Your task to perform on an android device: find photos in the google photos app Image 0: 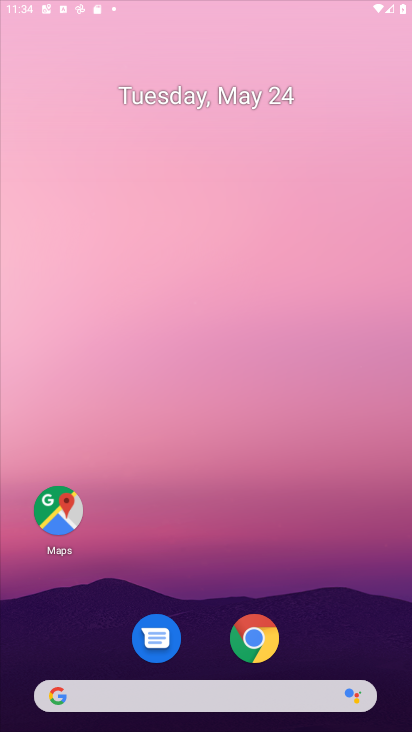
Step 0: click (325, 155)
Your task to perform on an android device: find photos in the google photos app Image 1: 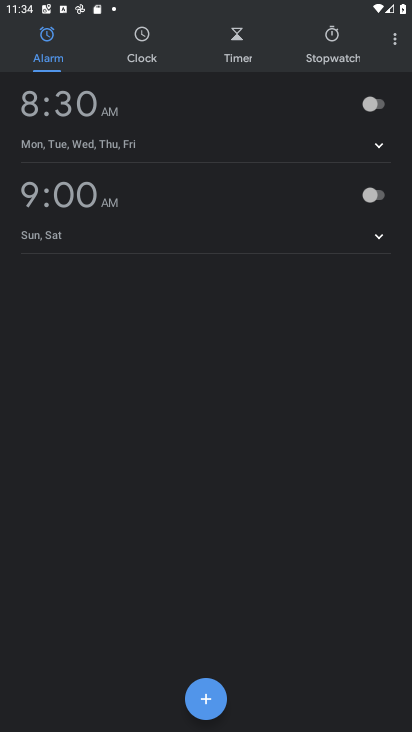
Step 1: press home button
Your task to perform on an android device: find photos in the google photos app Image 2: 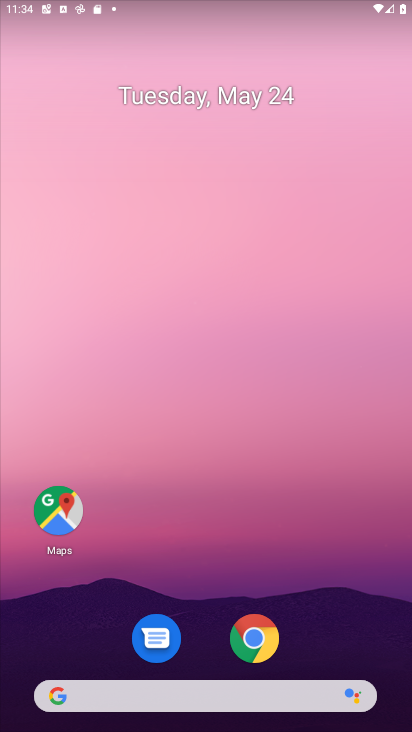
Step 2: drag from (222, 652) to (320, 15)
Your task to perform on an android device: find photos in the google photos app Image 3: 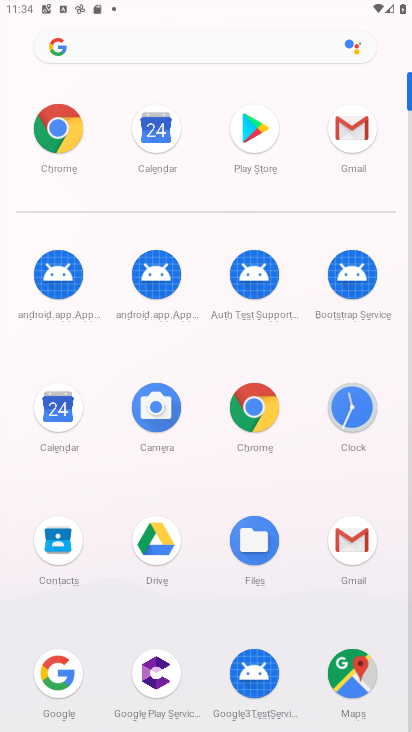
Step 3: drag from (218, 519) to (163, 112)
Your task to perform on an android device: find photos in the google photos app Image 4: 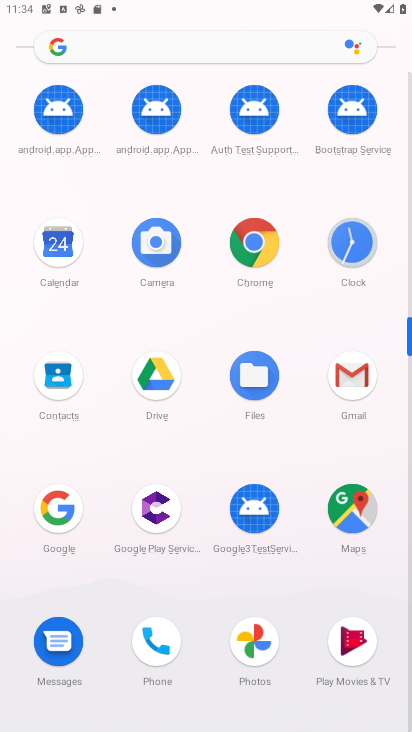
Step 4: click (248, 636)
Your task to perform on an android device: find photos in the google photos app Image 5: 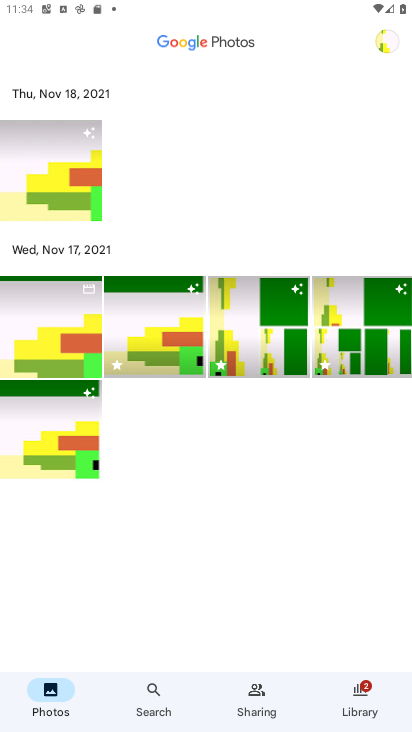
Step 5: task complete